Your task to perform on an android device: toggle location history Image 0: 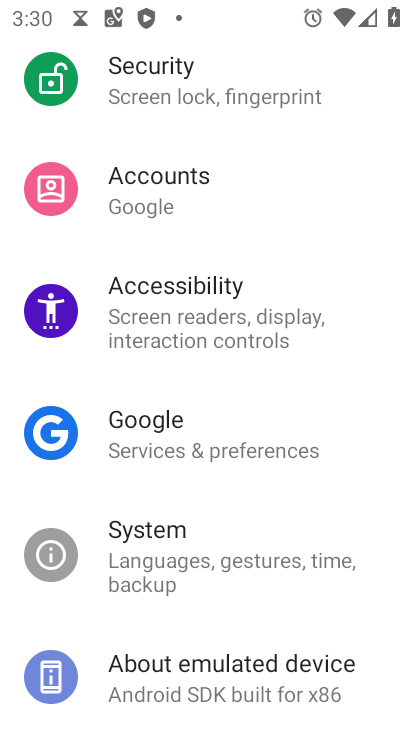
Step 0: click (78, 429)
Your task to perform on an android device: toggle location history Image 1: 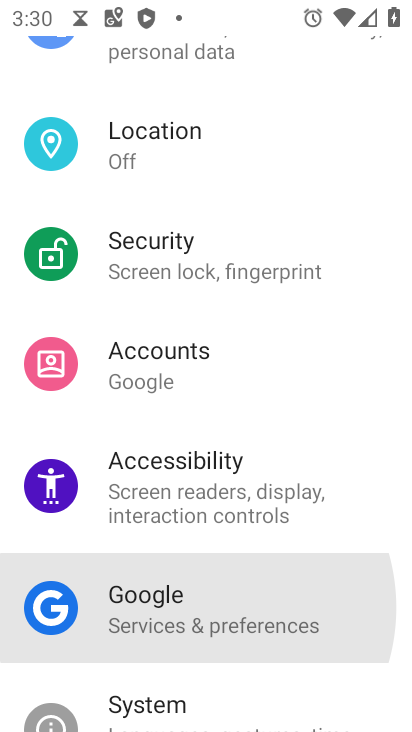
Step 1: click (78, 429)
Your task to perform on an android device: toggle location history Image 2: 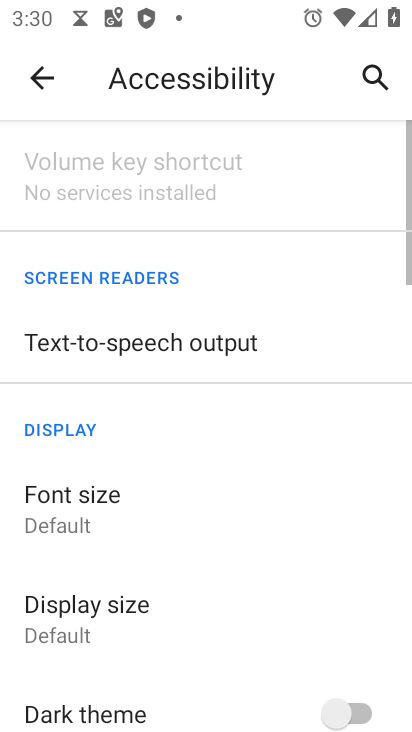
Step 2: press back button
Your task to perform on an android device: toggle location history Image 3: 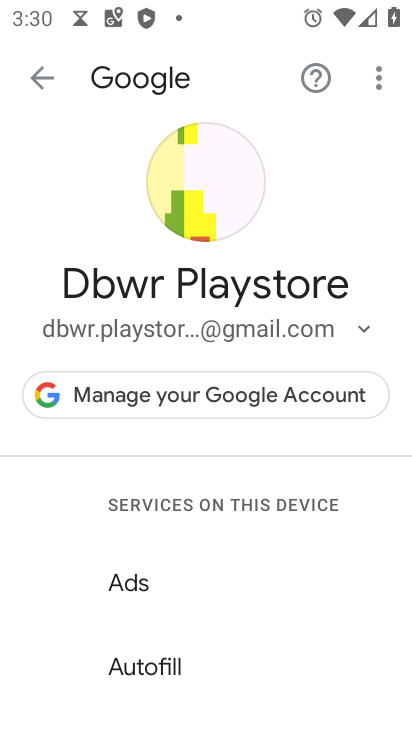
Step 3: click (45, 70)
Your task to perform on an android device: toggle location history Image 4: 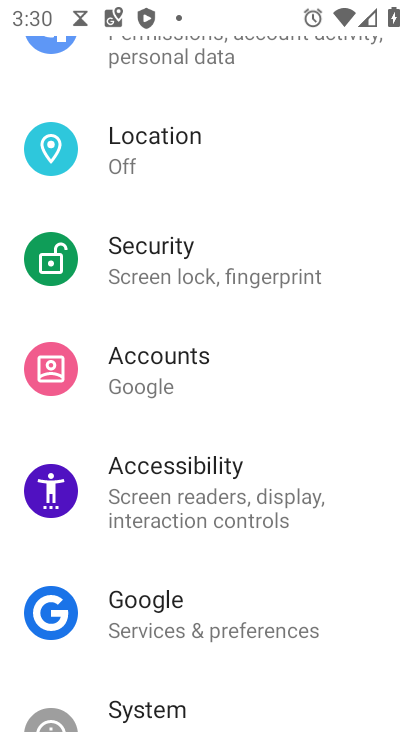
Step 4: press back button
Your task to perform on an android device: toggle location history Image 5: 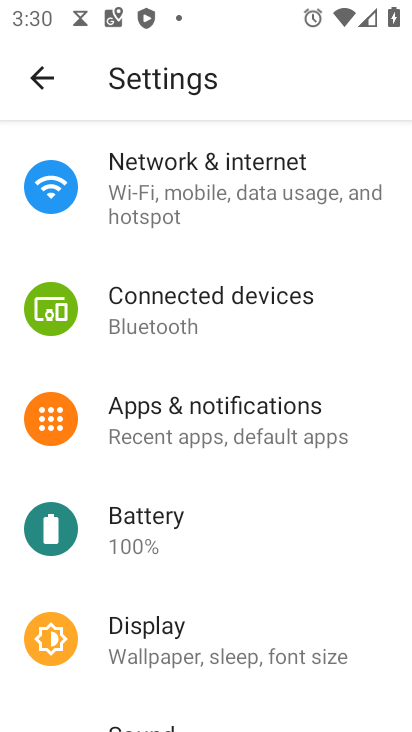
Step 5: press home button
Your task to perform on an android device: toggle location history Image 6: 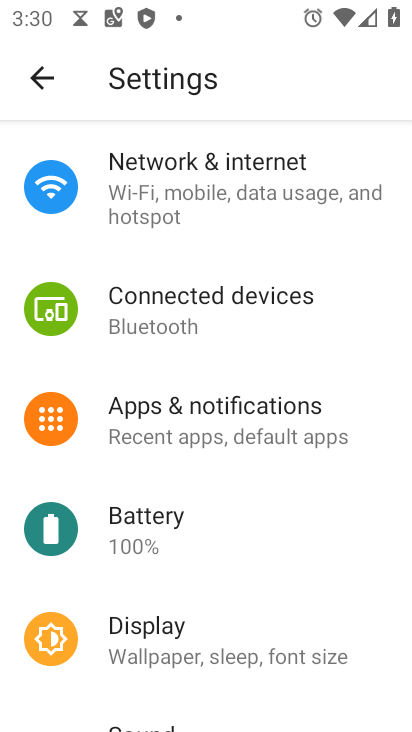
Step 6: press home button
Your task to perform on an android device: toggle location history Image 7: 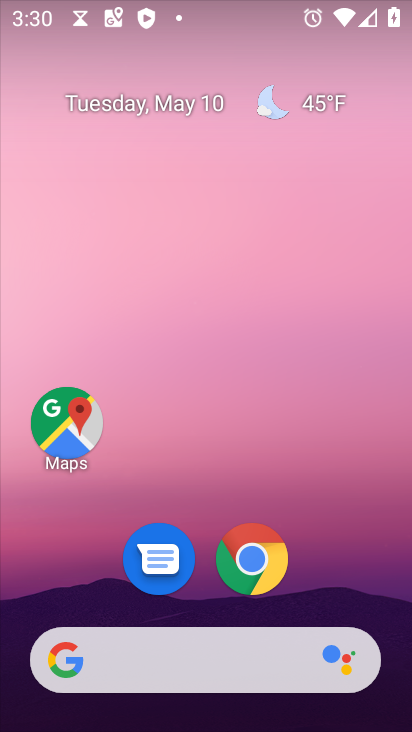
Step 7: drag from (319, 610) to (47, 23)
Your task to perform on an android device: toggle location history Image 8: 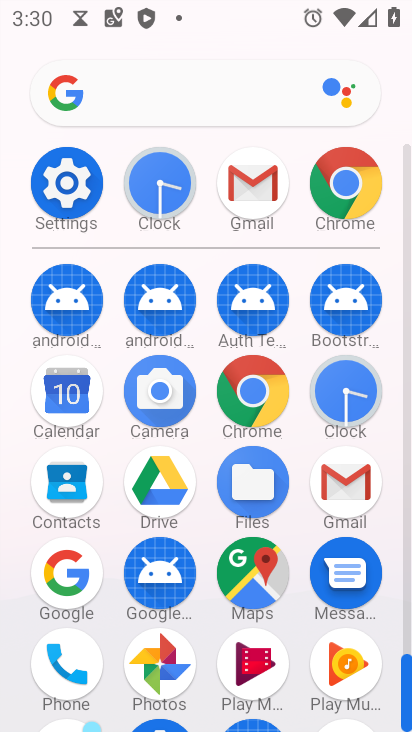
Step 8: drag from (267, 478) to (81, 0)
Your task to perform on an android device: toggle location history Image 9: 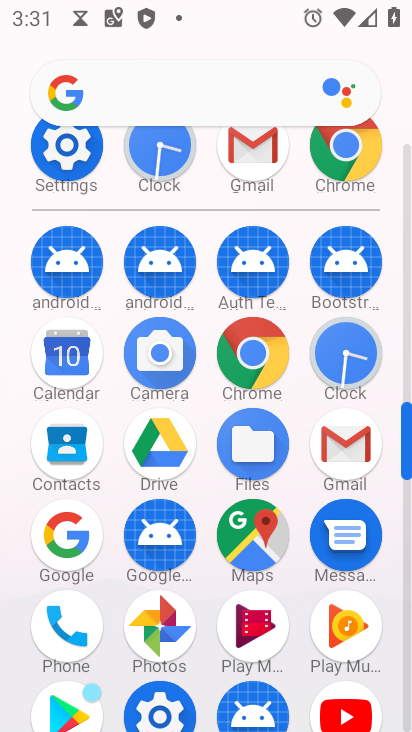
Step 9: click (248, 540)
Your task to perform on an android device: toggle location history Image 10: 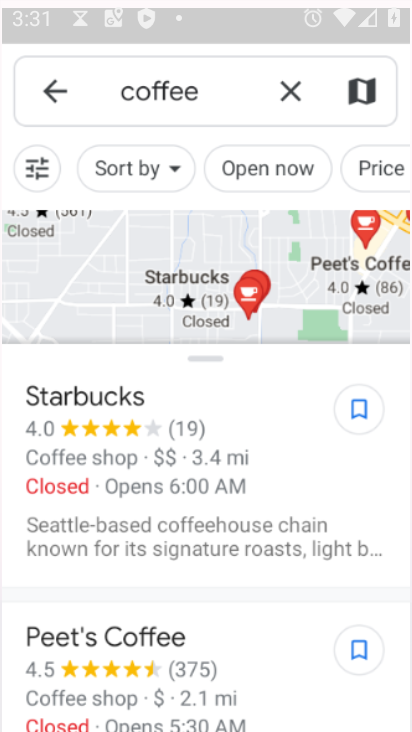
Step 10: click (247, 547)
Your task to perform on an android device: toggle location history Image 11: 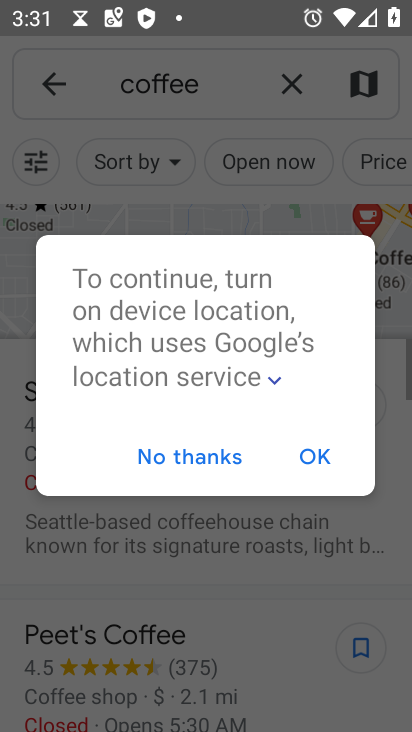
Step 11: click (187, 458)
Your task to perform on an android device: toggle location history Image 12: 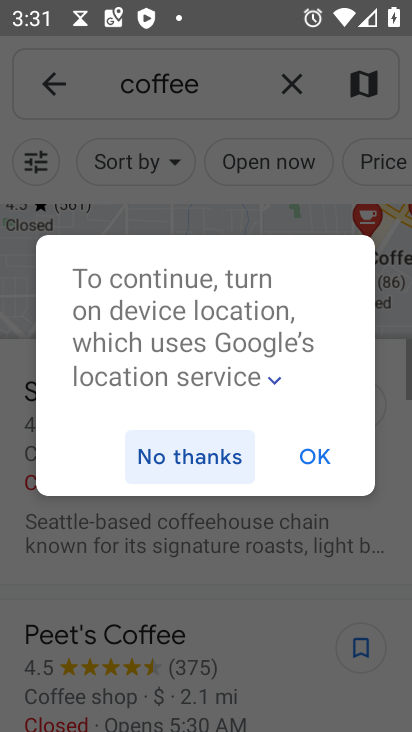
Step 12: click (187, 457)
Your task to perform on an android device: toggle location history Image 13: 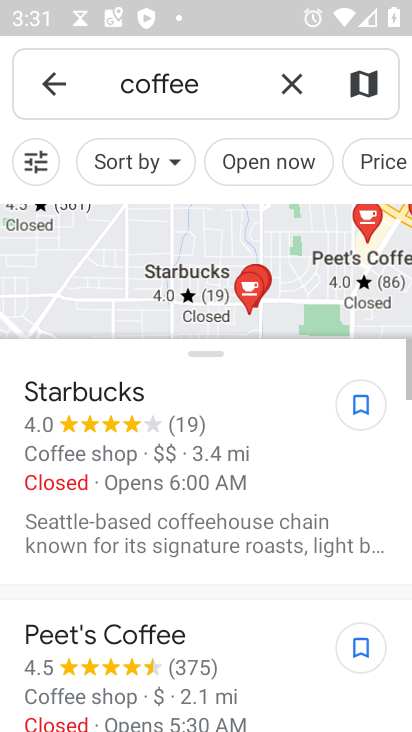
Step 13: click (182, 483)
Your task to perform on an android device: toggle location history Image 14: 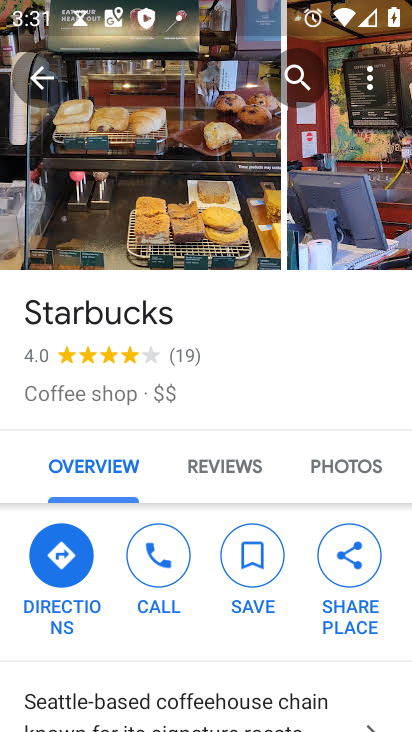
Step 14: click (41, 85)
Your task to perform on an android device: toggle location history Image 15: 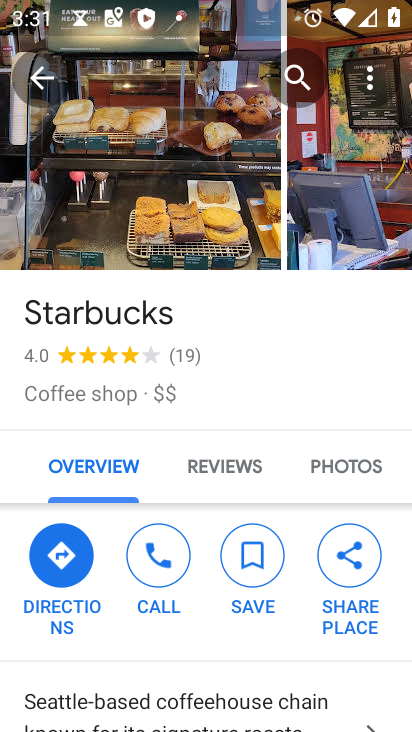
Step 15: click (41, 77)
Your task to perform on an android device: toggle location history Image 16: 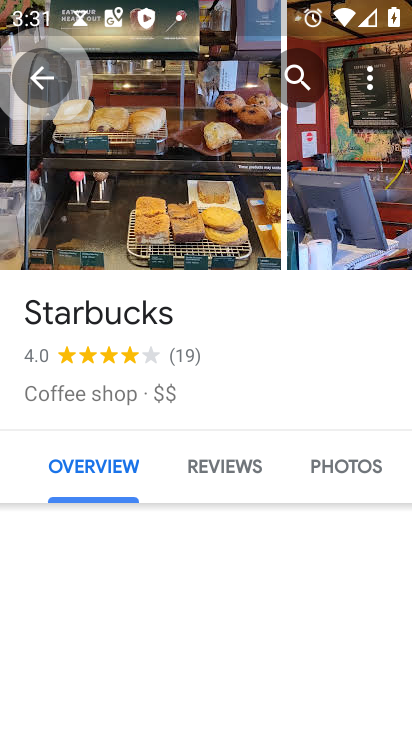
Step 16: click (30, 84)
Your task to perform on an android device: toggle location history Image 17: 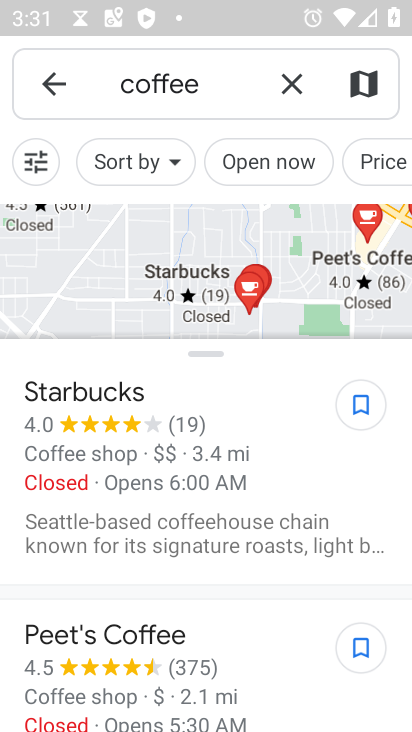
Step 17: click (47, 77)
Your task to perform on an android device: toggle location history Image 18: 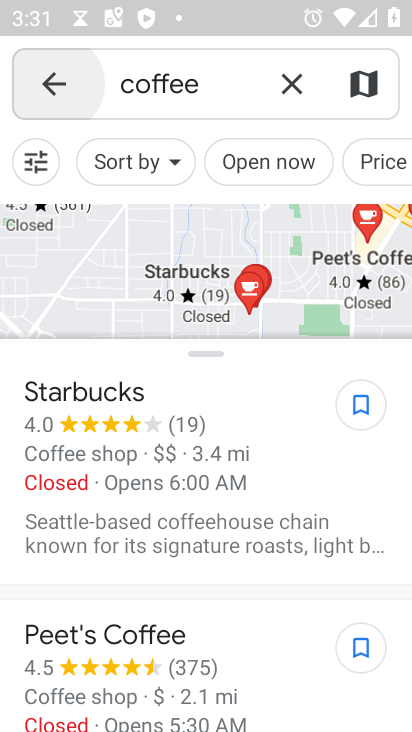
Step 18: click (47, 77)
Your task to perform on an android device: toggle location history Image 19: 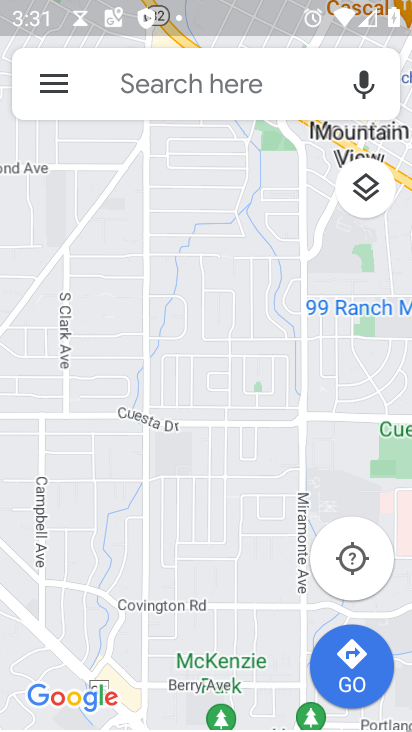
Step 19: click (47, 77)
Your task to perform on an android device: toggle location history Image 20: 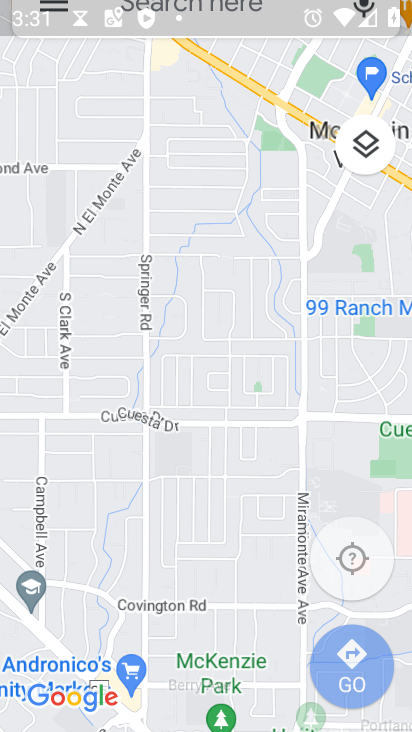
Step 20: click (45, 80)
Your task to perform on an android device: toggle location history Image 21: 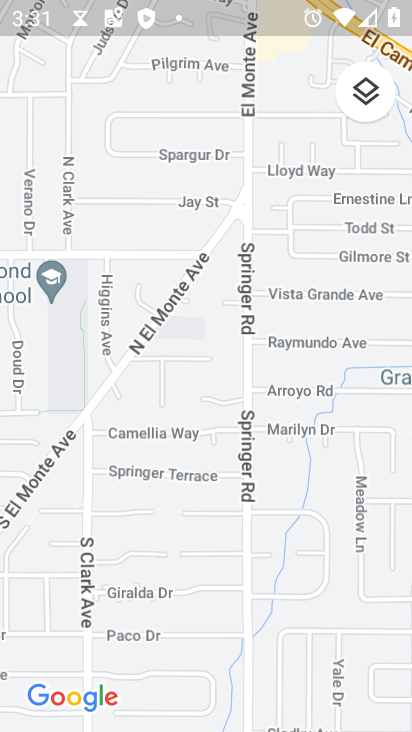
Step 21: press back button
Your task to perform on an android device: toggle location history Image 22: 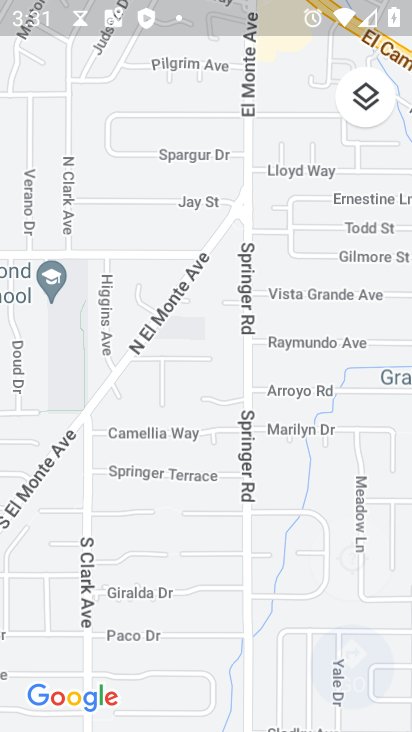
Step 22: press back button
Your task to perform on an android device: toggle location history Image 23: 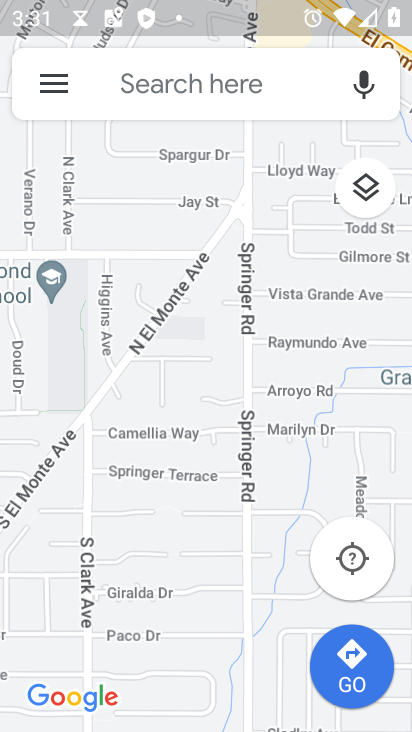
Step 23: press back button
Your task to perform on an android device: toggle location history Image 24: 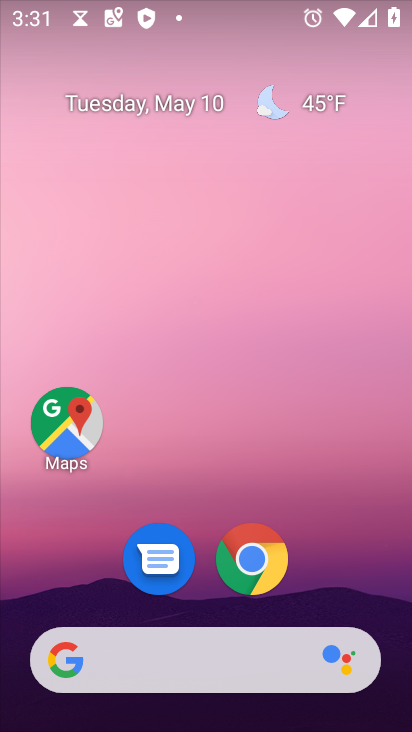
Step 24: click (47, 72)
Your task to perform on an android device: toggle location history Image 25: 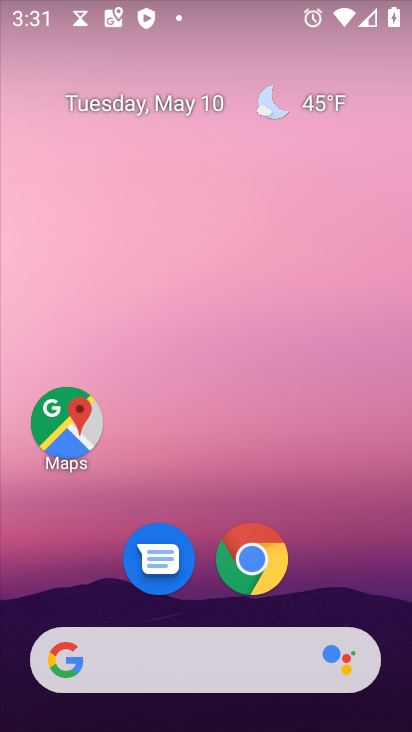
Step 25: click (67, 415)
Your task to perform on an android device: toggle location history Image 26: 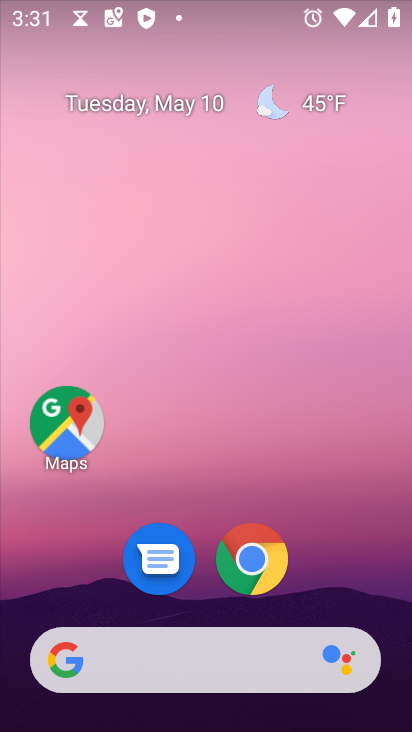
Step 26: click (66, 415)
Your task to perform on an android device: toggle location history Image 27: 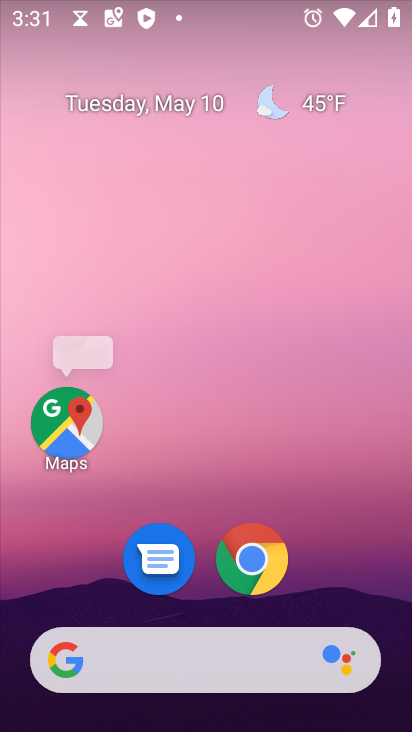
Step 27: click (65, 415)
Your task to perform on an android device: toggle location history Image 28: 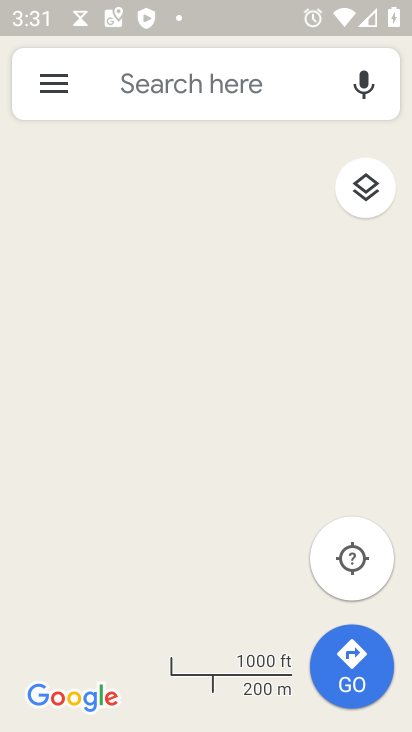
Step 28: click (58, 85)
Your task to perform on an android device: toggle location history Image 29: 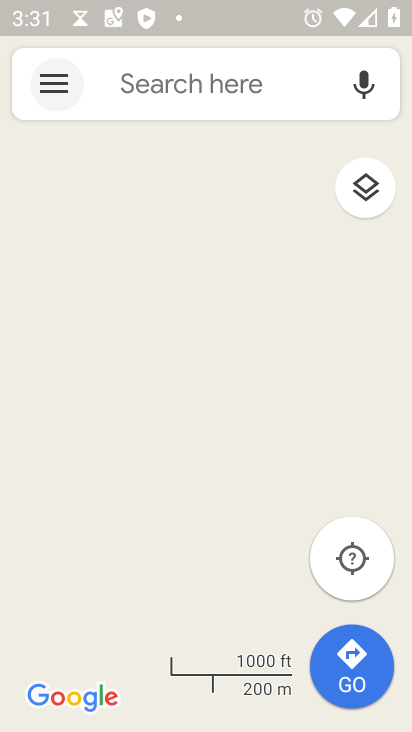
Step 29: click (58, 84)
Your task to perform on an android device: toggle location history Image 30: 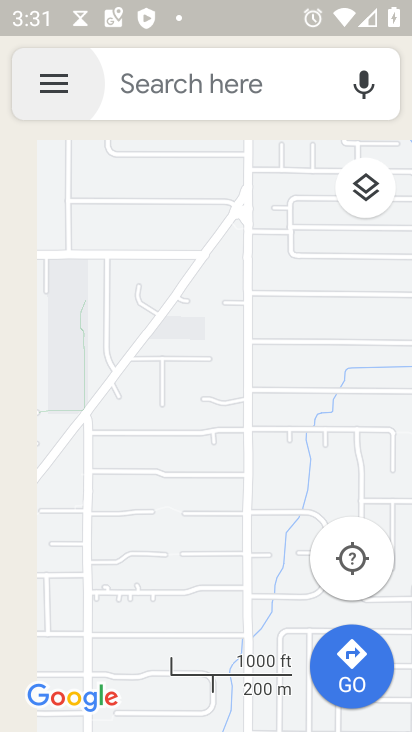
Step 30: click (58, 84)
Your task to perform on an android device: toggle location history Image 31: 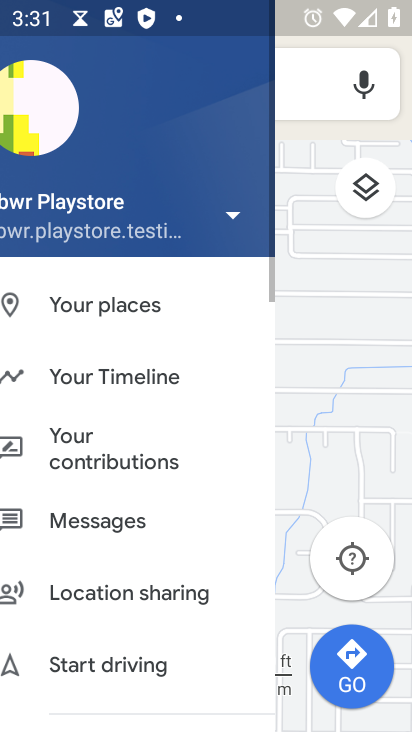
Step 31: click (56, 82)
Your task to perform on an android device: toggle location history Image 32: 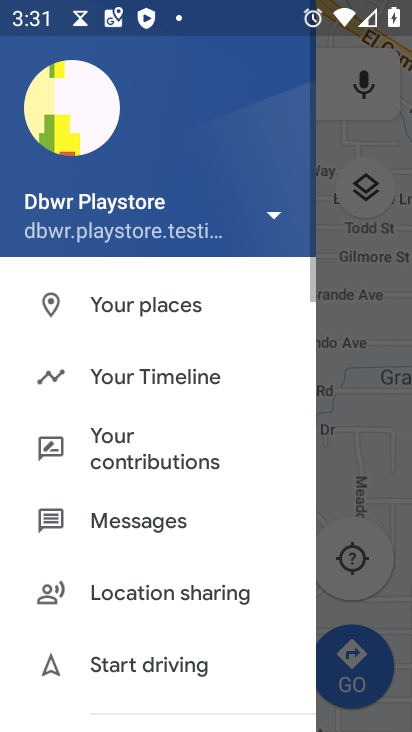
Step 32: click (183, 375)
Your task to perform on an android device: toggle location history Image 33: 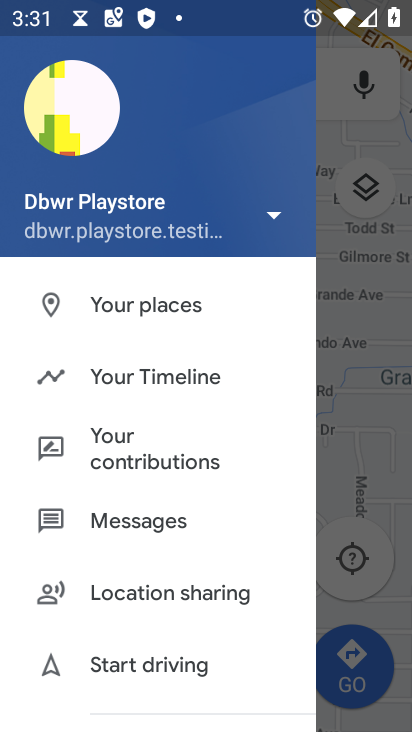
Step 33: click (238, 394)
Your task to perform on an android device: toggle location history Image 34: 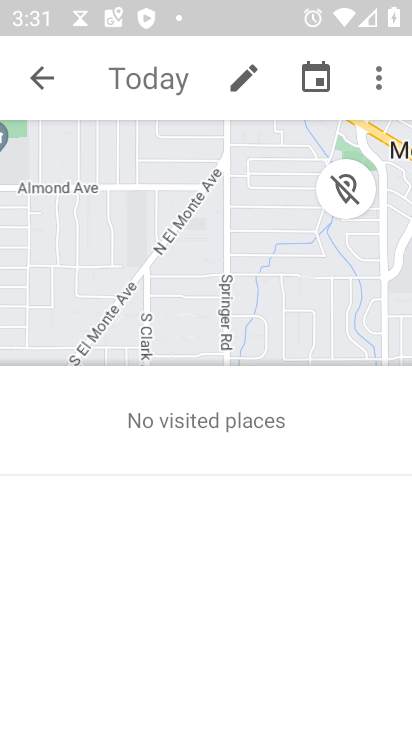
Step 34: click (45, 83)
Your task to perform on an android device: toggle location history Image 35: 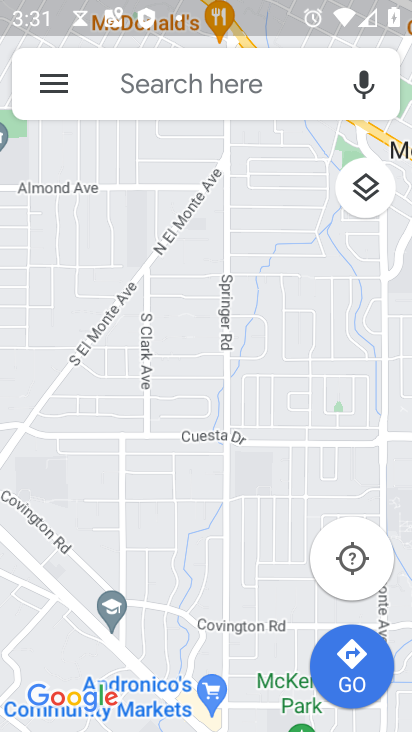
Step 35: click (42, 78)
Your task to perform on an android device: toggle location history Image 36: 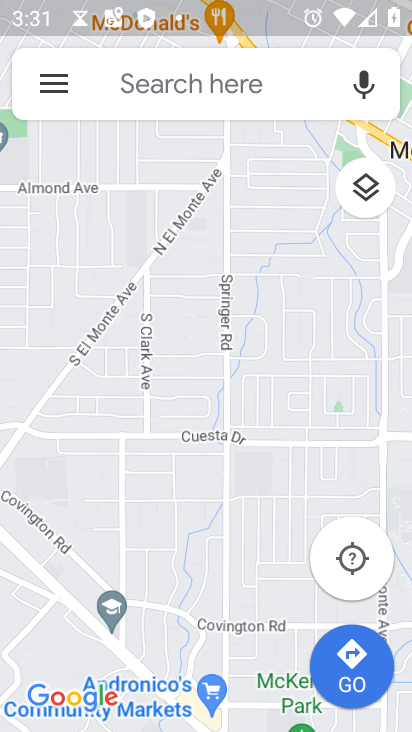
Step 36: click (43, 79)
Your task to perform on an android device: toggle location history Image 37: 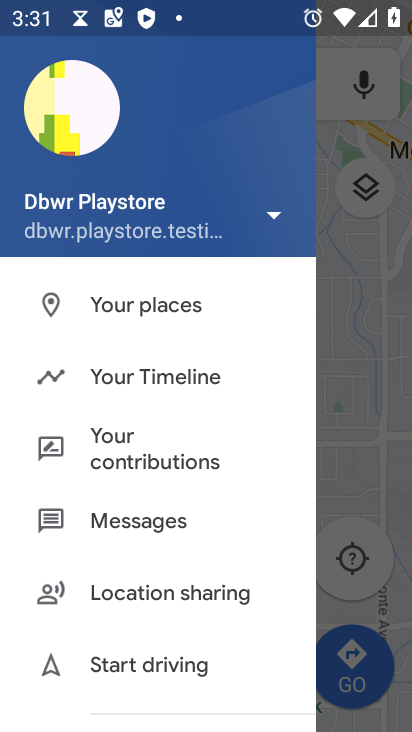
Step 37: click (169, 372)
Your task to perform on an android device: toggle location history Image 38: 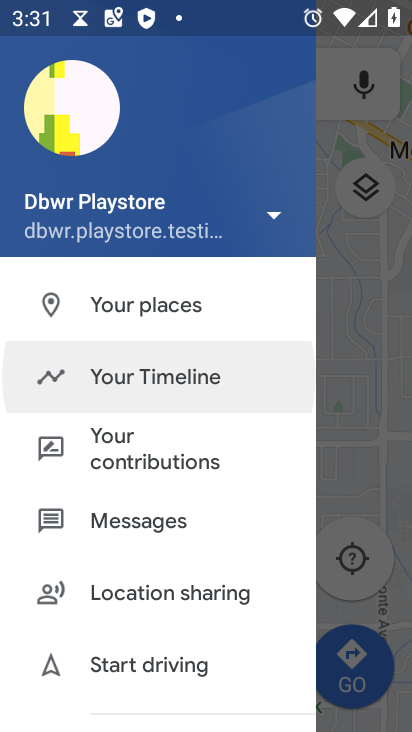
Step 38: click (169, 372)
Your task to perform on an android device: toggle location history Image 39: 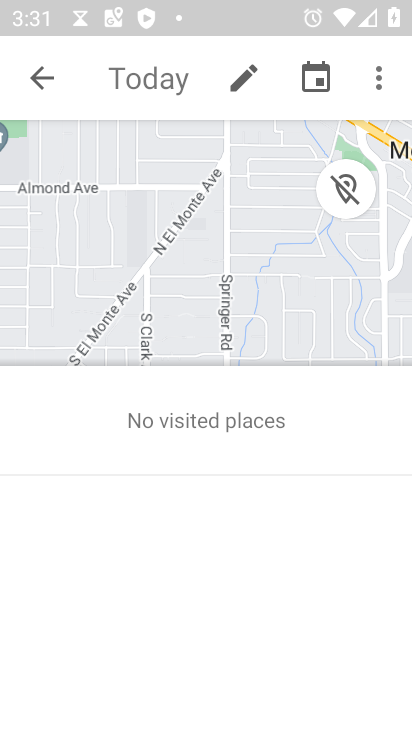
Step 39: click (380, 77)
Your task to perform on an android device: toggle location history Image 40: 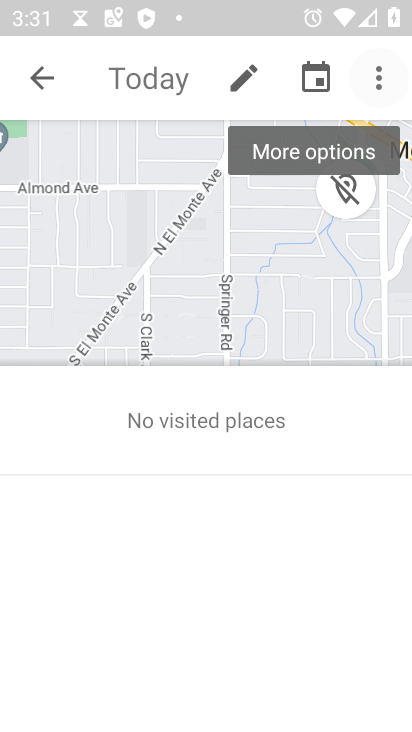
Step 40: click (380, 77)
Your task to perform on an android device: toggle location history Image 41: 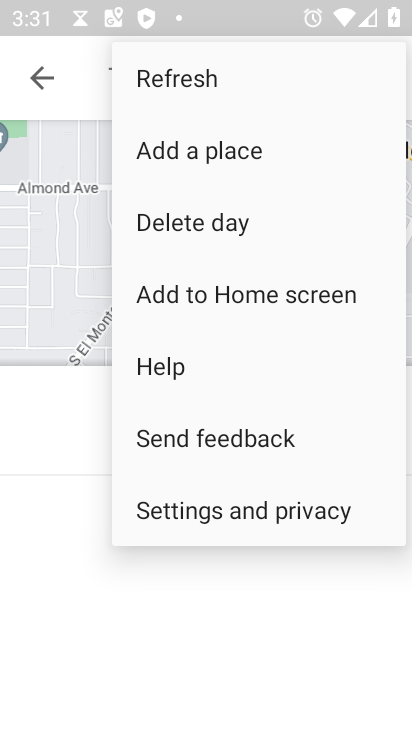
Step 41: click (374, 74)
Your task to perform on an android device: toggle location history Image 42: 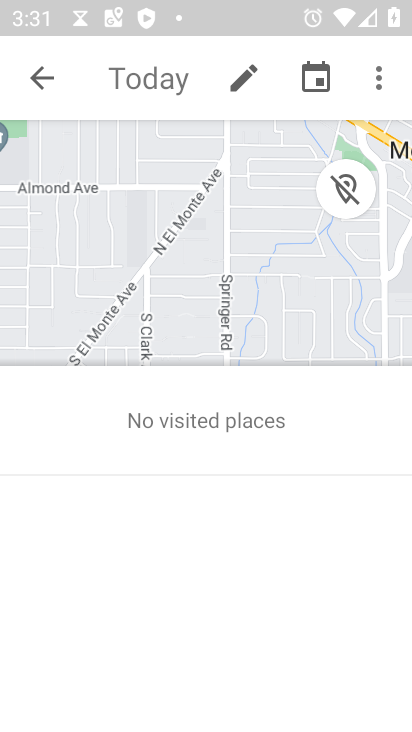
Step 42: click (231, 505)
Your task to perform on an android device: toggle location history Image 43: 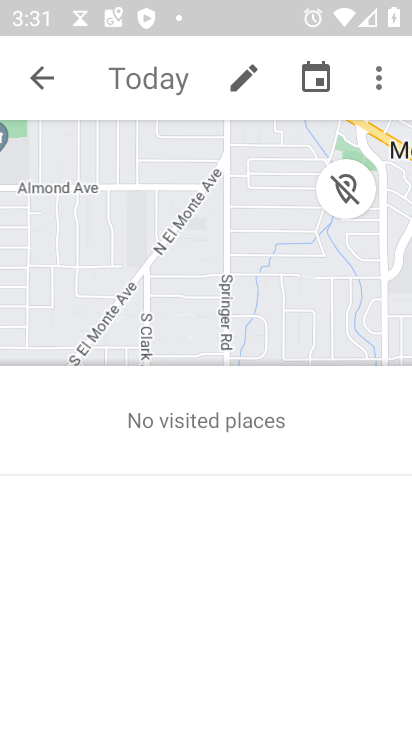
Step 43: click (375, 88)
Your task to perform on an android device: toggle location history Image 44: 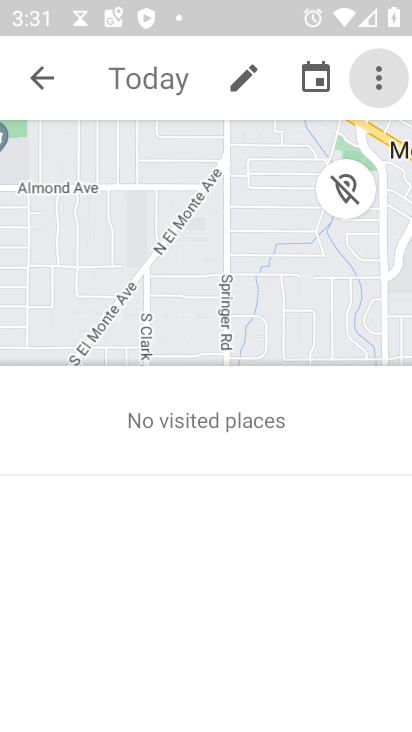
Step 44: click (376, 87)
Your task to perform on an android device: toggle location history Image 45: 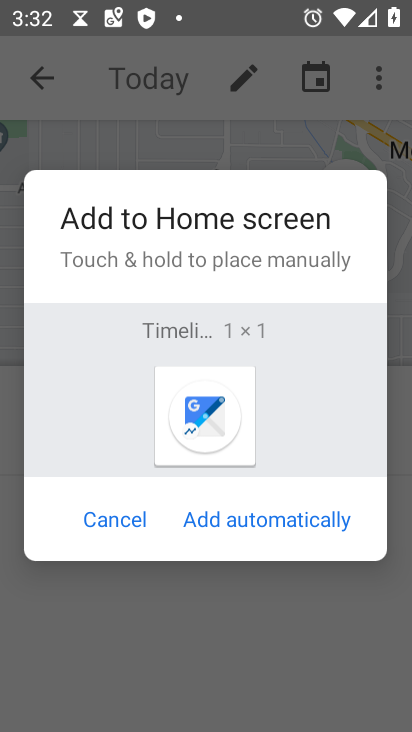
Step 45: click (121, 514)
Your task to perform on an android device: toggle location history Image 46: 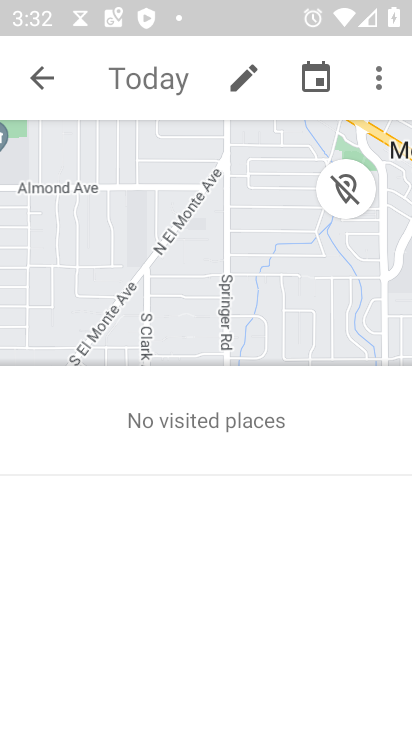
Step 46: click (378, 79)
Your task to perform on an android device: toggle location history Image 47: 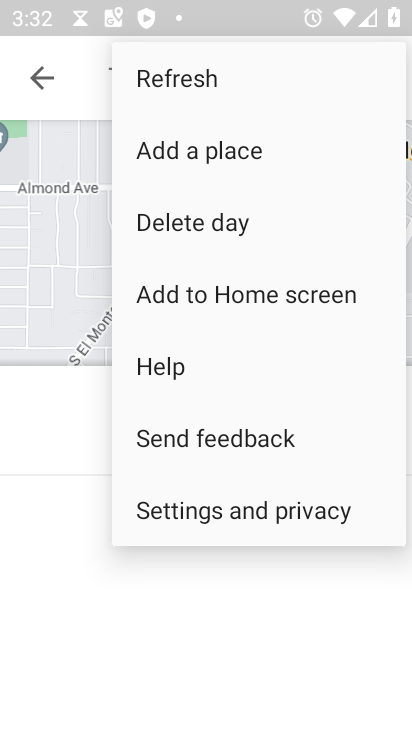
Step 47: click (259, 523)
Your task to perform on an android device: toggle location history Image 48: 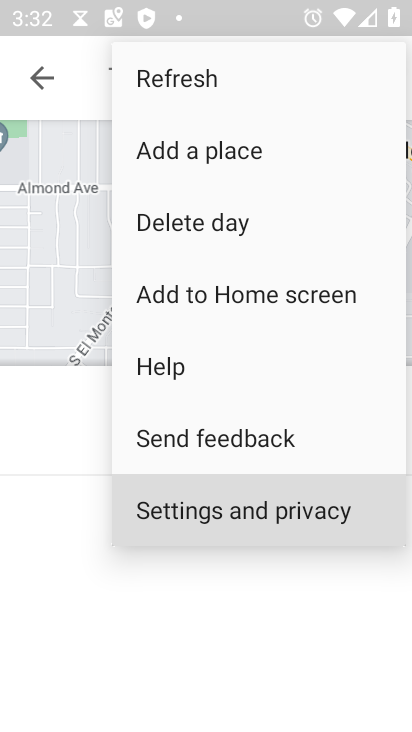
Step 48: click (255, 523)
Your task to perform on an android device: toggle location history Image 49: 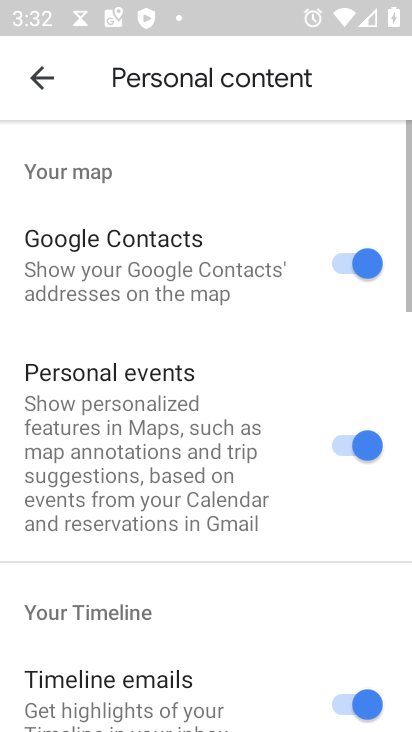
Step 49: click (256, 515)
Your task to perform on an android device: toggle location history Image 50: 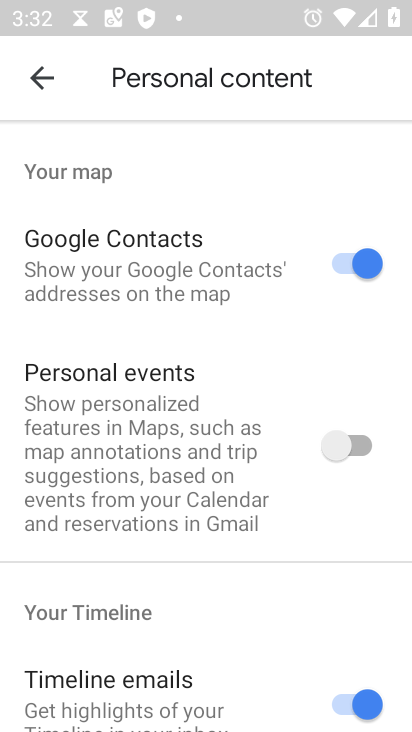
Step 50: drag from (155, 594) to (123, 158)
Your task to perform on an android device: toggle location history Image 51: 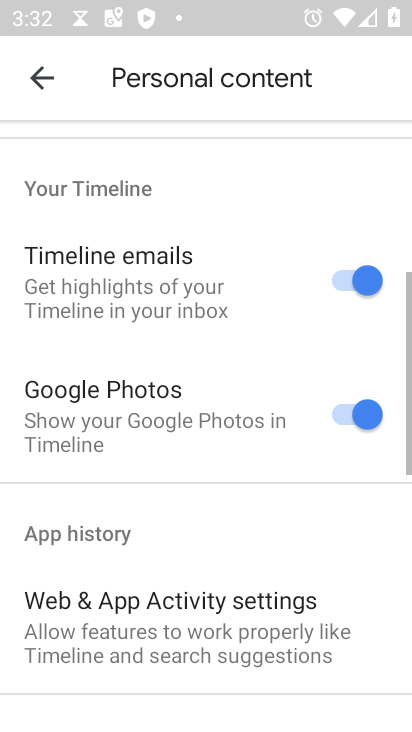
Step 51: drag from (213, 495) to (156, 149)
Your task to perform on an android device: toggle location history Image 52: 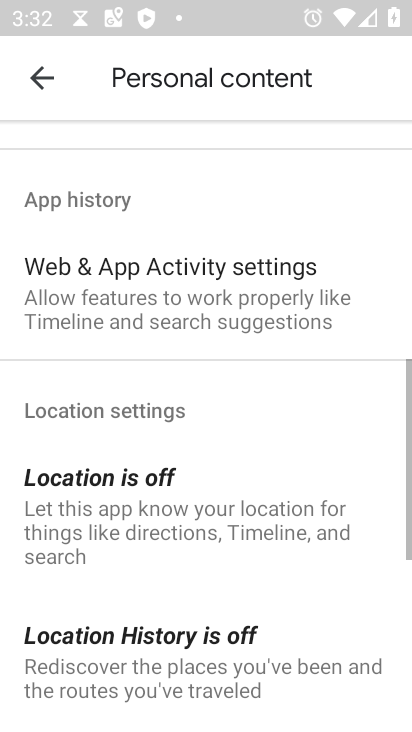
Step 52: drag from (213, 547) to (213, 171)
Your task to perform on an android device: toggle location history Image 53: 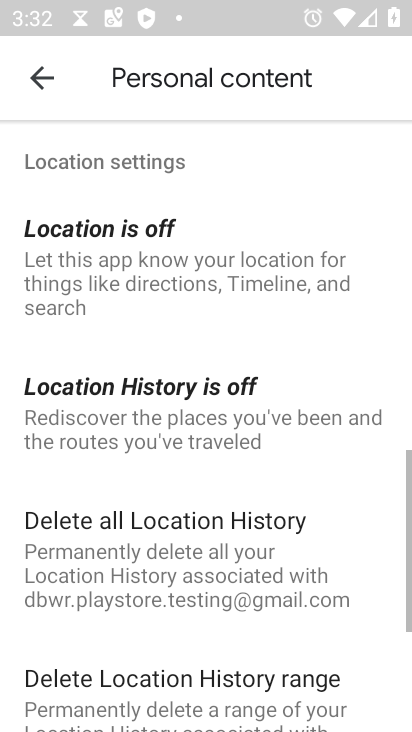
Step 53: drag from (204, 555) to (177, 168)
Your task to perform on an android device: toggle location history Image 54: 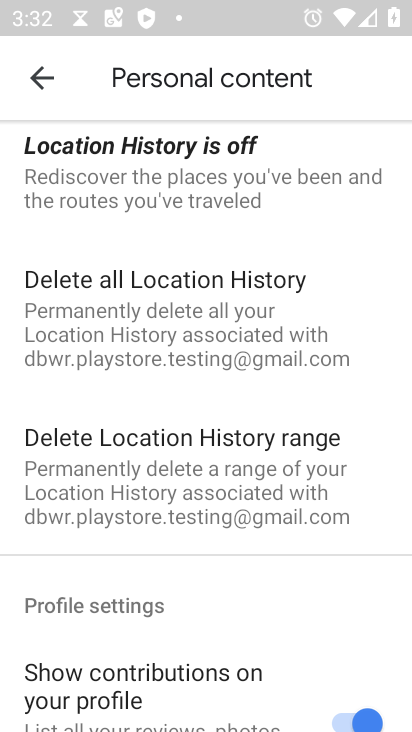
Step 54: click (150, 173)
Your task to perform on an android device: toggle location history Image 55: 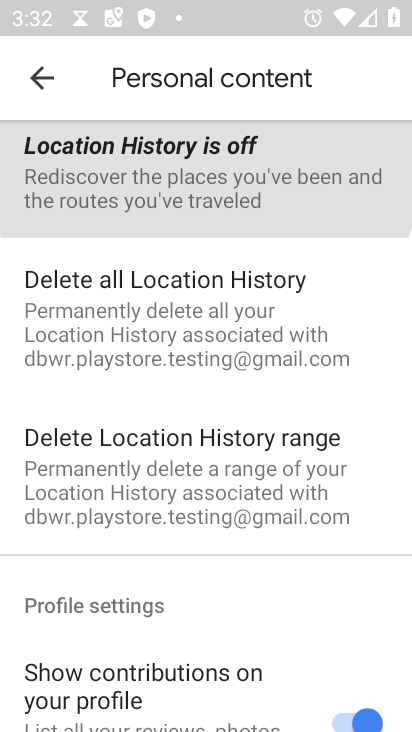
Step 55: click (151, 172)
Your task to perform on an android device: toggle location history Image 56: 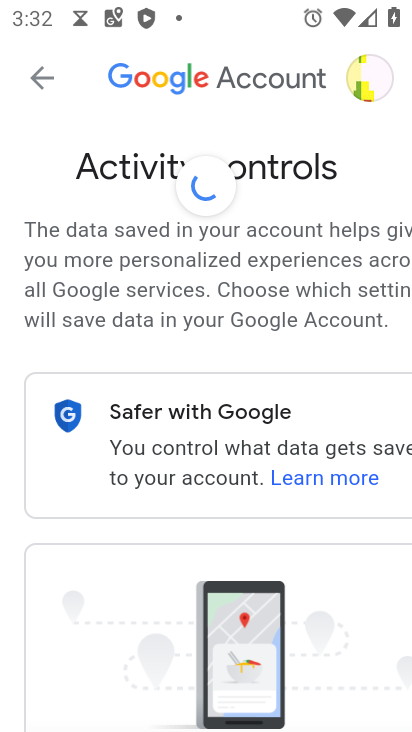
Step 56: drag from (237, 240) to (222, 103)
Your task to perform on an android device: toggle location history Image 57: 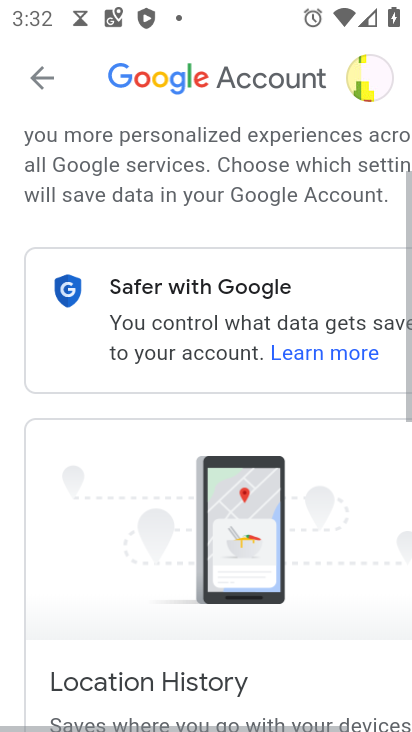
Step 57: drag from (217, 451) to (141, 86)
Your task to perform on an android device: toggle location history Image 58: 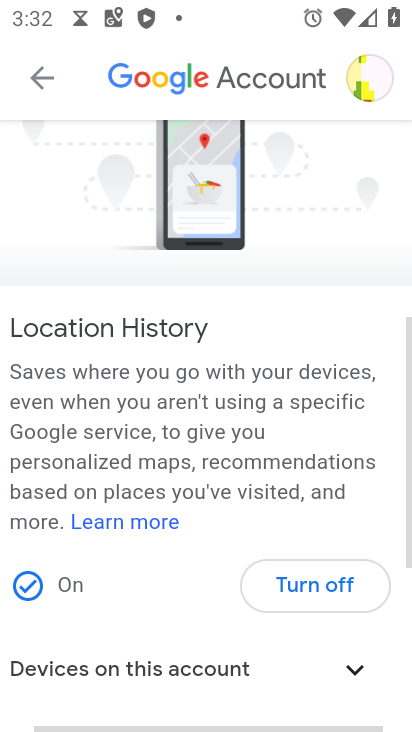
Step 58: drag from (186, 328) to (162, 33)
Your task to perform on an android device: toggle location history Image 59: 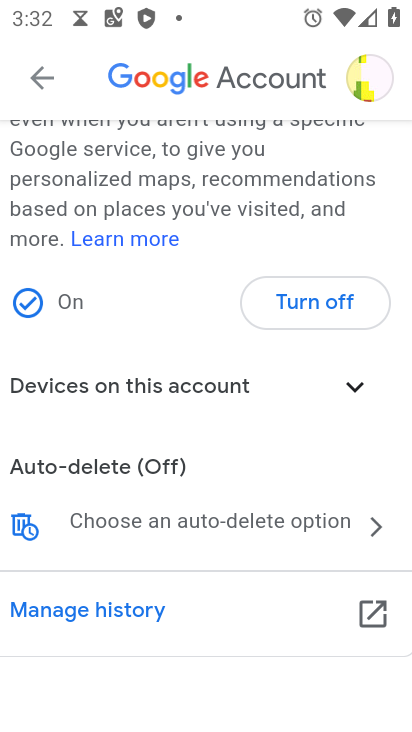
Step 59: click (312, 309)
Your task to perform on an android device: toggle location history Image 60: 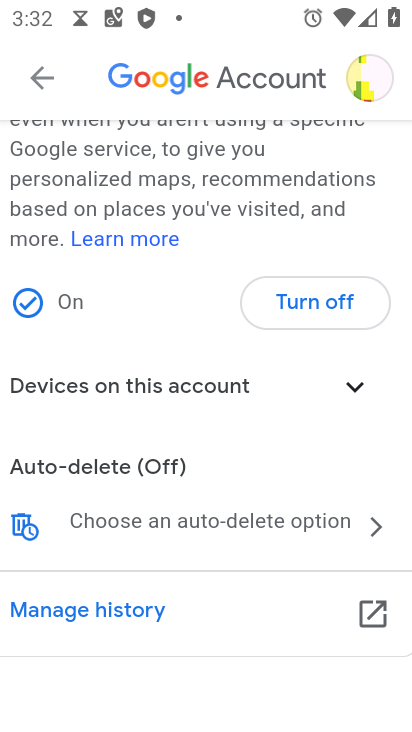
Step 60: click (313, 305)
Your task to perform on an android device: toggle location history Image 61: 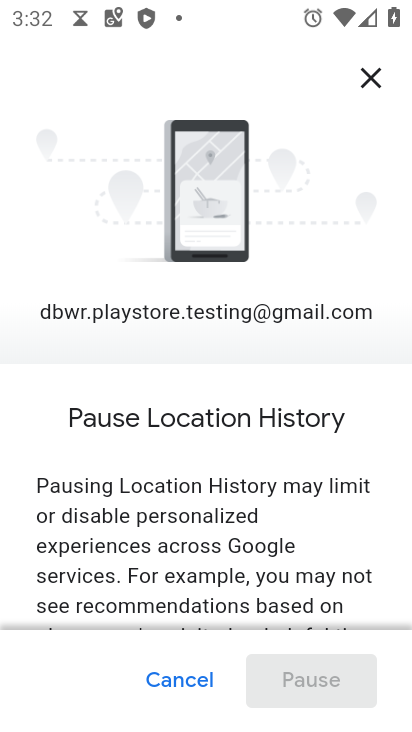
Step 61: task complete